Your task to perform on an android device: turn off priority inbox in the gmail app Image 0: 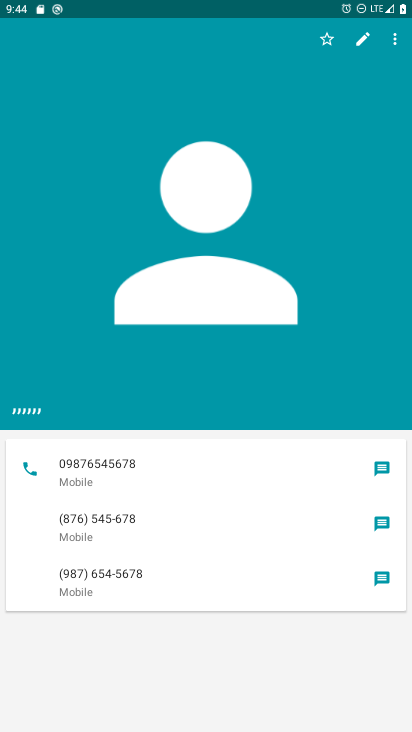
Step 0: press home button
Your task to perform on an android device: turn off priority inbox in the gmail app Image 1: 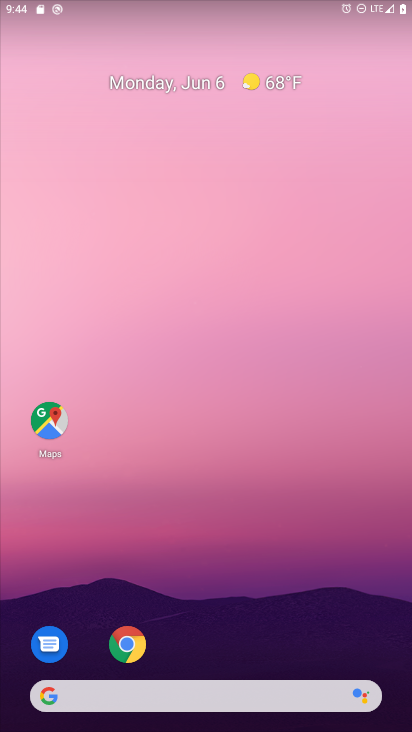
Step 1: drag from (226, 704) to (215, 106)
Your task to perform on an android device: turn off priority inbox in the gmail app Image 2: 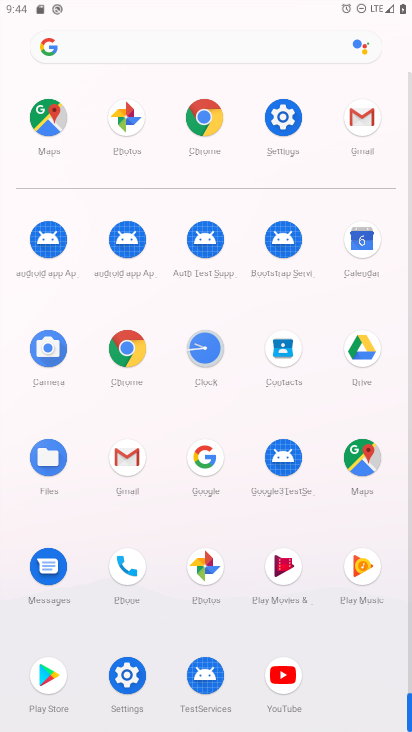
Step 2: click (357, 113)
Your task to perform on an android device: turn off priority inbox in the gmail app Image 3: 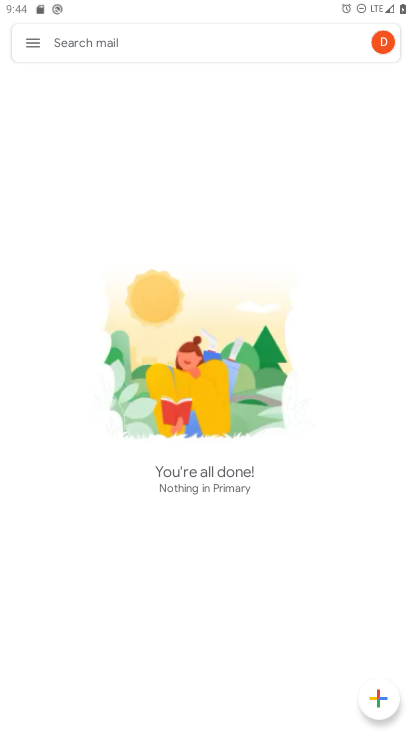
Step 3: click (28, 46)
Your task to perform on an android device: turn off priority inbox in the gmail app Image 4: 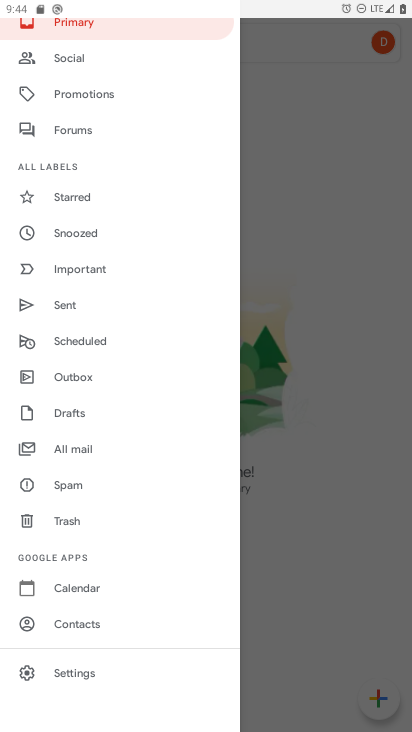
Step 4: click (105, 670)
Your task to perform on an android device: turn off priority inbox in the gmail app Image 5: 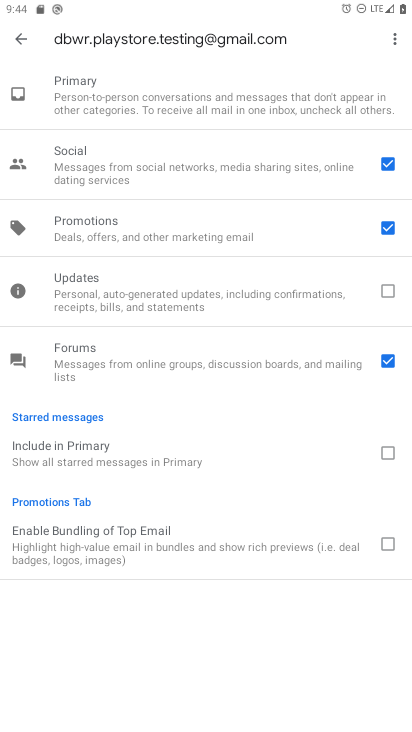
Step 5: click (17, 33)
Your task to perform on an android device: turn off priority inbox in the gmail app Image 6: 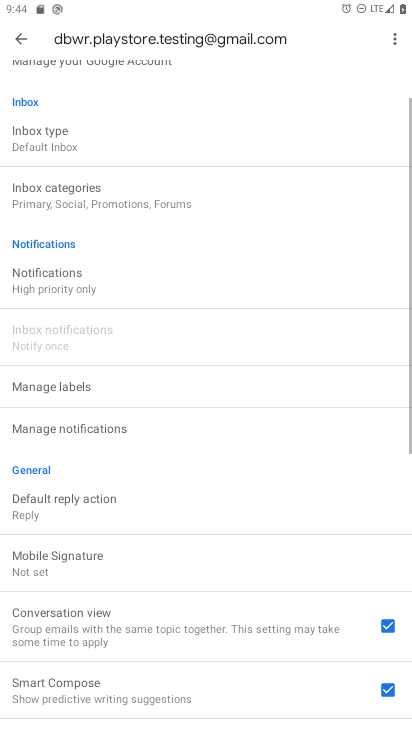
Step 6: drag from (138, 138) to (232, 457)
Your task to perform on an android device: turn off priority inbox in the gmail app Image 7: 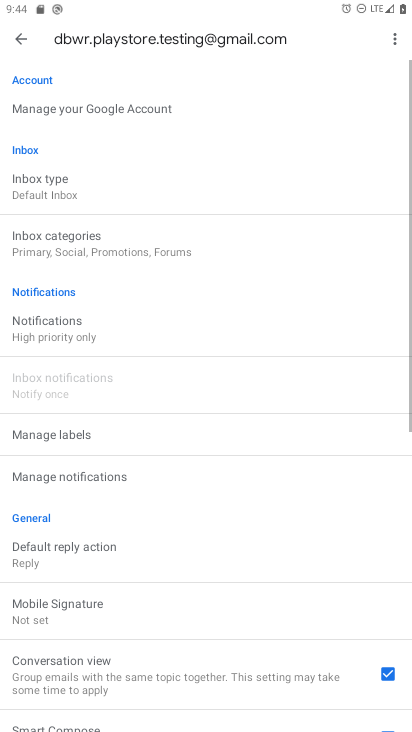
Step 7: click (79, 185)
Your task to perform on an android device: turn off priority inbox in the gmail app Image 8: 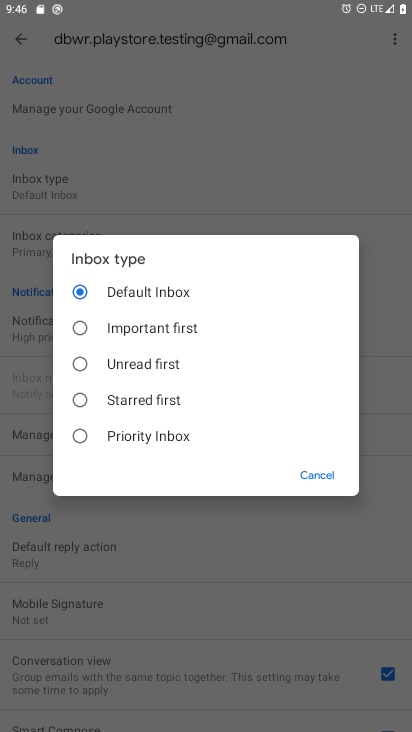
Step 8: task complete